Your task to perform on an android device: create a new album in the google photos Image 0: 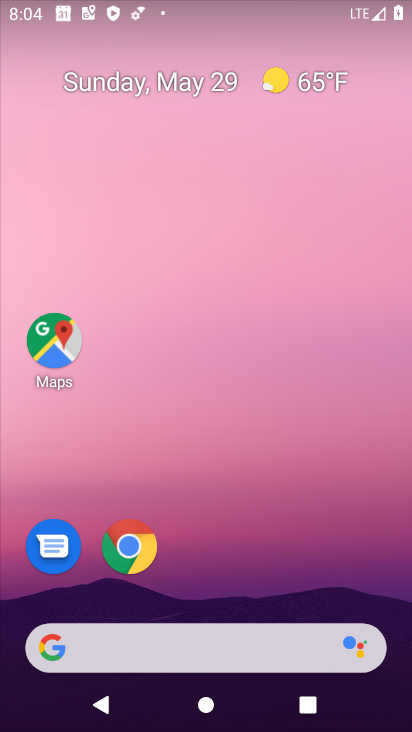
Step 0: drag from (163, 569) to (172, 218)
Your task to perform on an android device: create a new album in the google photos Image 1: 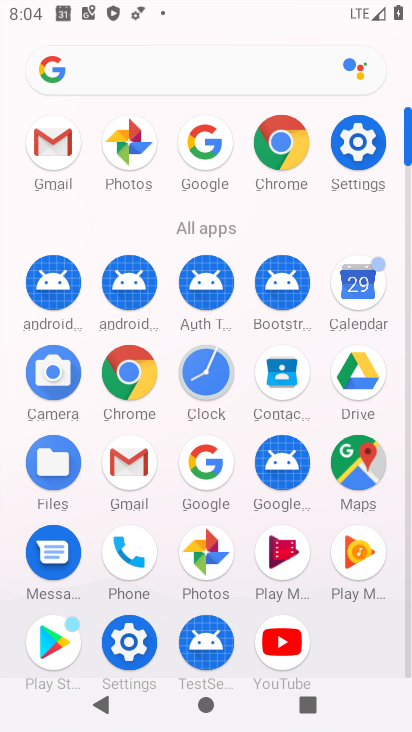
Step 1: click (218, 565)
Your task to perform on an android device: create a new album in the google photos Image 2: 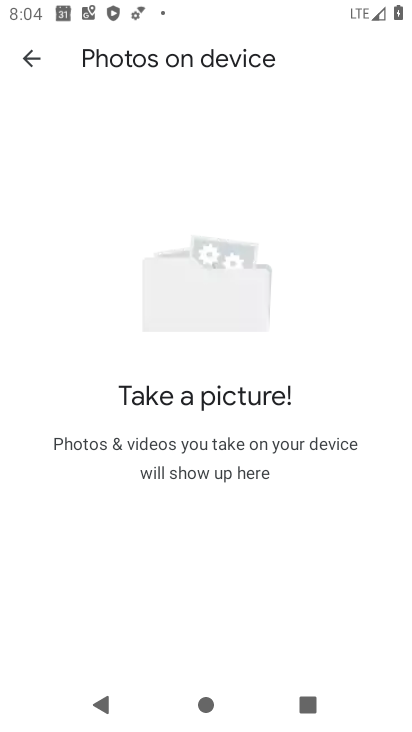
Step 2: click (31, 65)
Your task to perform on an android device: create a new album in the google photos Image 3: 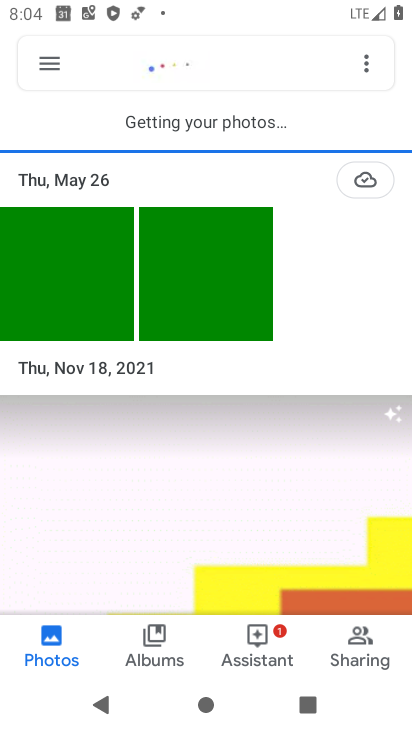
Step 3: click (148, 639)
Your task to perform on an android device: create a new album in the google photos Image 4: 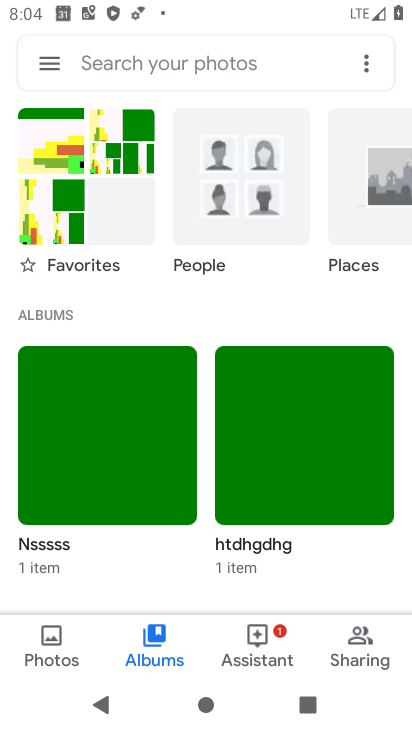
Step 4: drag from (159, 563) to (222, 124)
Your task to perform on an android device: create a new album in the google photos Image 5: 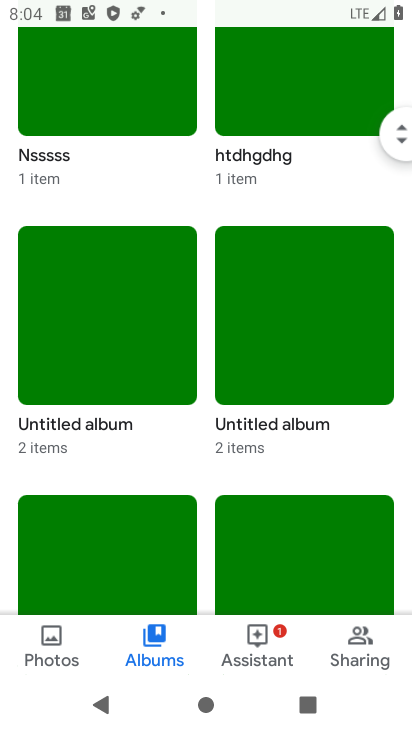
Step 5: drag from (253, 131) to (291, 511)
Your task to perform on an android device: create a new album in the google photos Image 6: 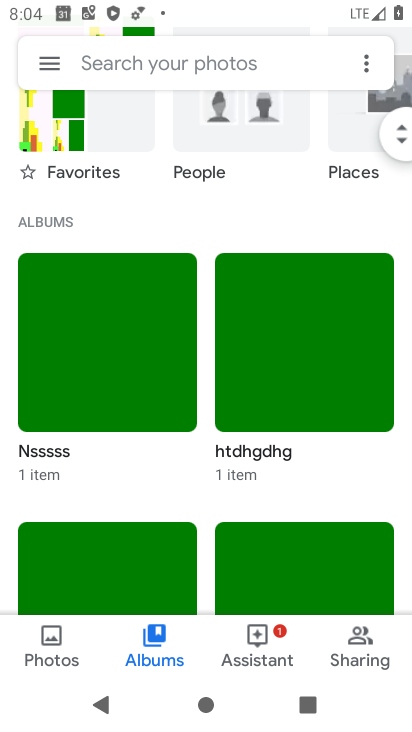
Step 6: click (103, 100)
Your task to perform on an android device: create a new album in the google photos Image 7: 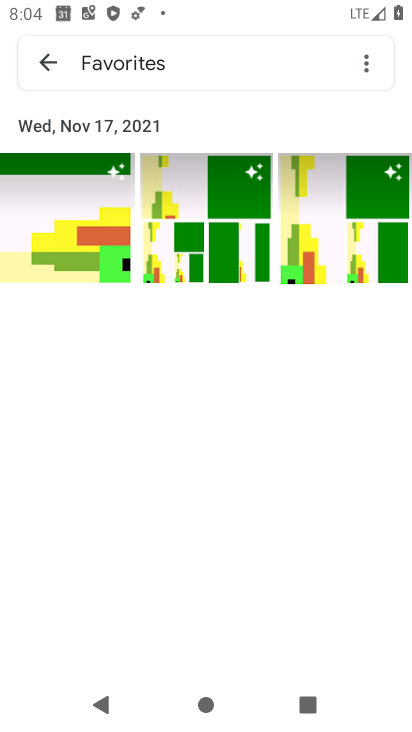
Step 7: click (43, 57)
Your task to perform on an android device: create a new album in the google photos Image 8: 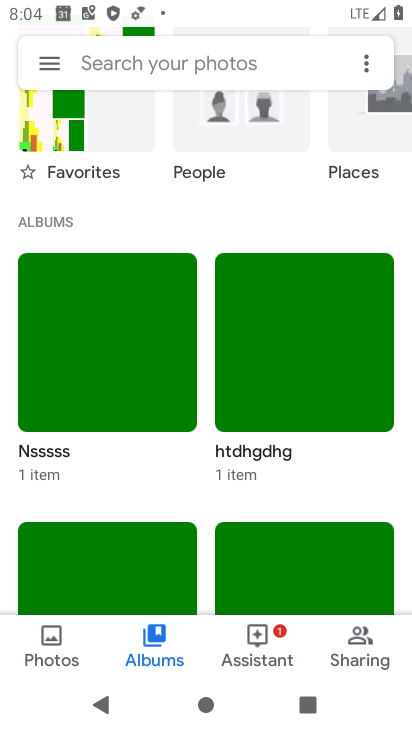
Step 8: drag from (251, 117) to (263, 547)
Your task to perform on an android device: create a new album in the google photos Image 9: 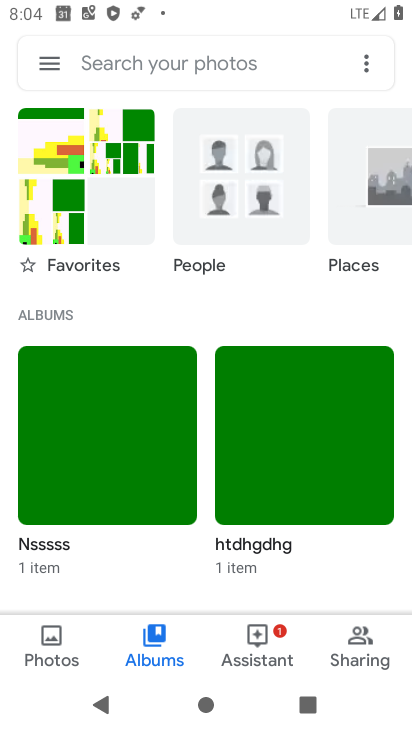
Step 9: click (126, 487)
Your task to perform on an android device: create a new album in the google photos Image 10: 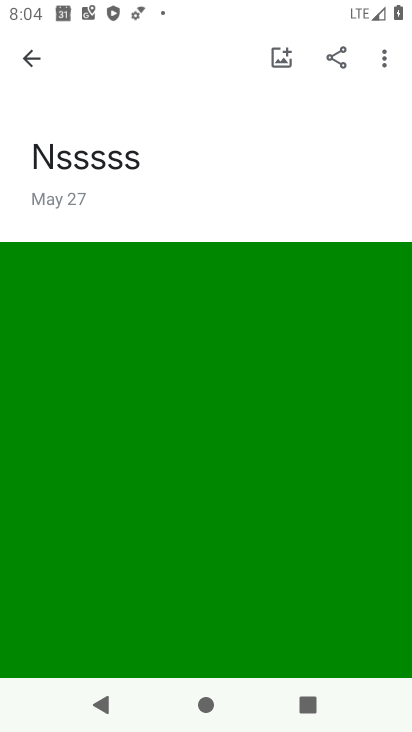
Step 10: drag from (136, 555) to (131, 135)
Your task to perform on an android device: create a new album in the google photos Image 11: 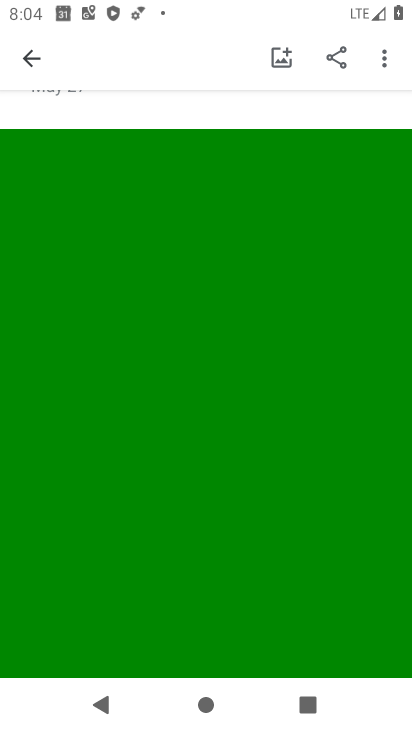
Step 11: click (18, 56)
Your task to perform on an android device: create a new album in the google photos Image 12: 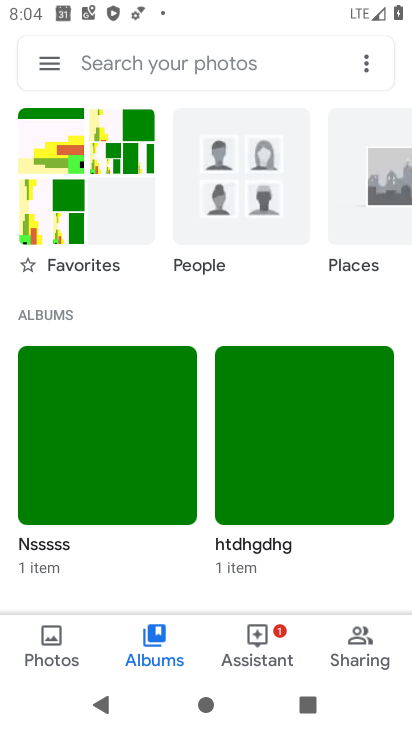
Step 12: click (253, 643)
Your task to perform on an android device: create a new album in the google photos Image 13: 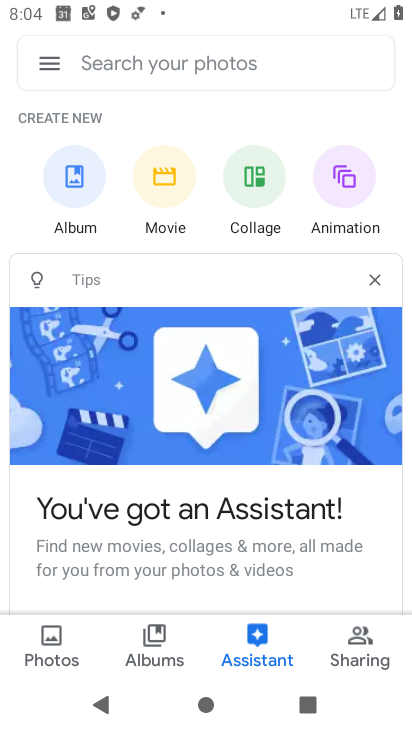
Step 13: click (79, 162)
Your task to perform on an android device: create a new album in the google photos Image 14: 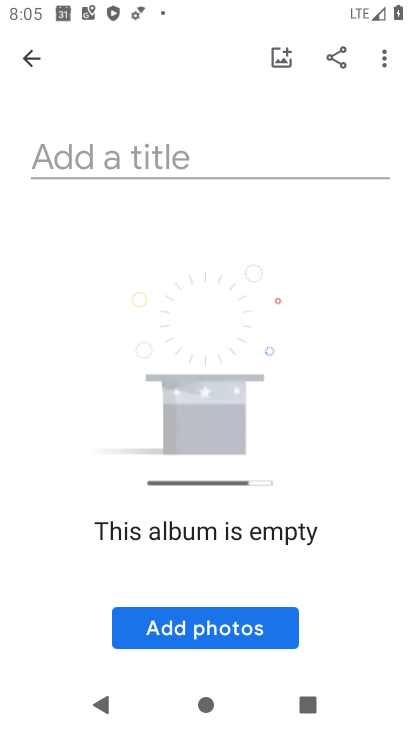
Step 14: click (144, 153)
Your task to perform on an android device: create a new album in the google photos Image 15: 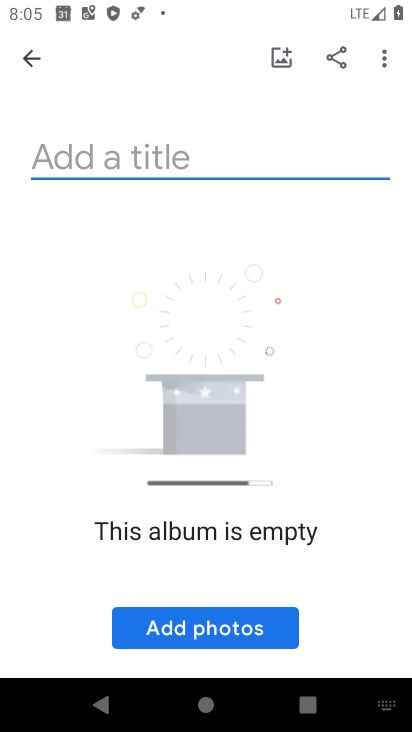
Step 15: type "pallllll"
Your task to perform on an android device: create a new album in the google photos Image 16: 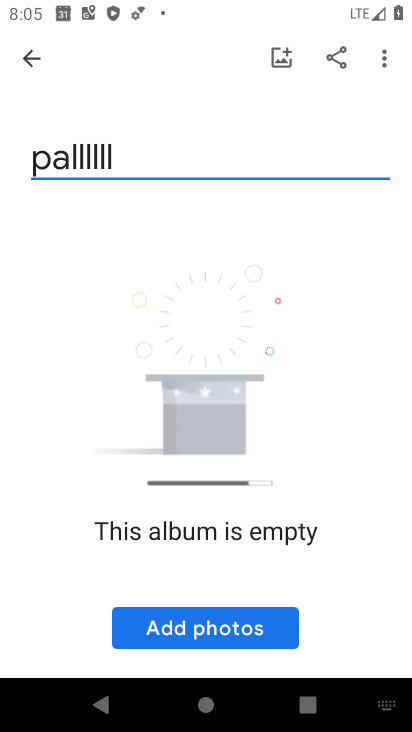
Step 16: click (221, 630)
Your task to perform on an android device: create a new album in the google photos Image 17: 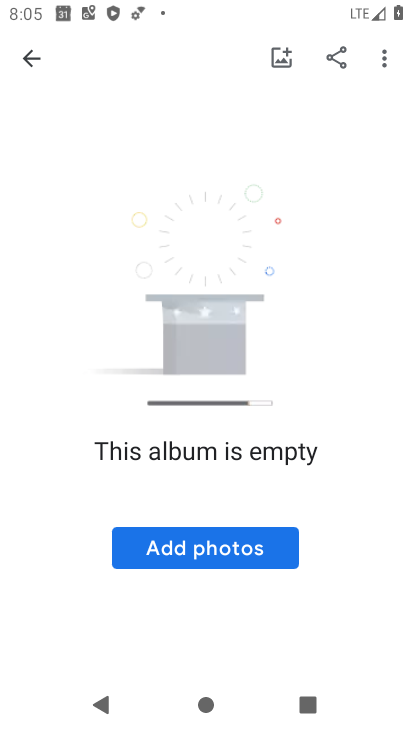
Step 17: click (195, 557)
Your task to perform on an android device: create a new album in the google photos Image 18: 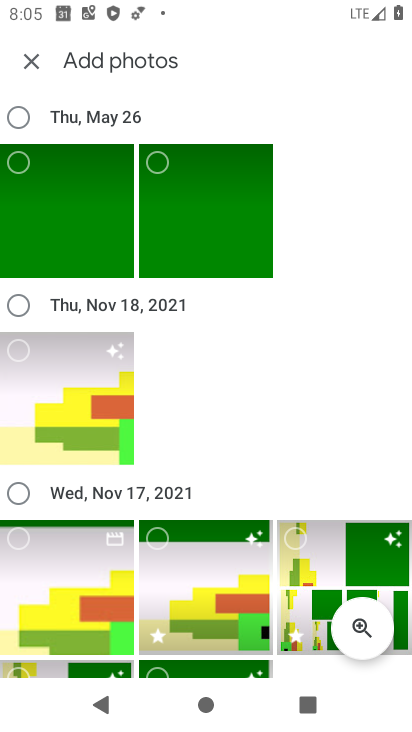
Step 18: click (29, 164)
Your task to perform on an android device: create a new album in the google photos Image 19: 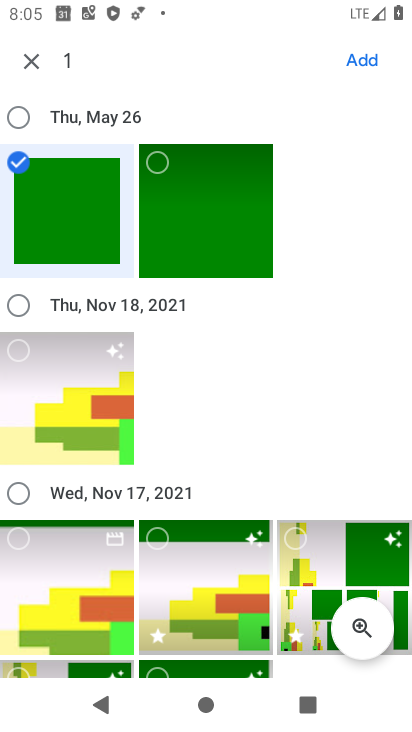
Step 19: click (168, 161)
Your task to perform on an android device: create a new album in the google photos Image 20: 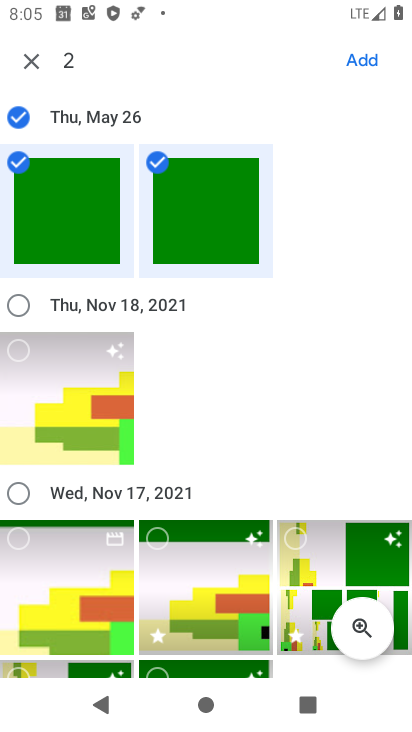
Step 20: click (373, 59)
Your task to perform on an android device: create a new album in the google photos Image 21: 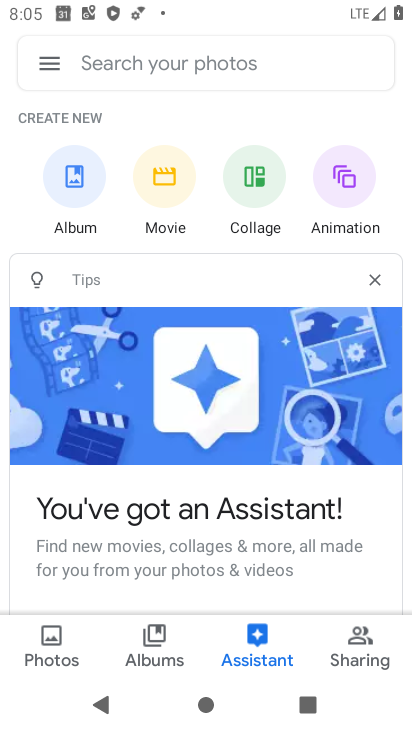
Step 21: task complete